Your task to perform on an android device: toggle location history Image 0: 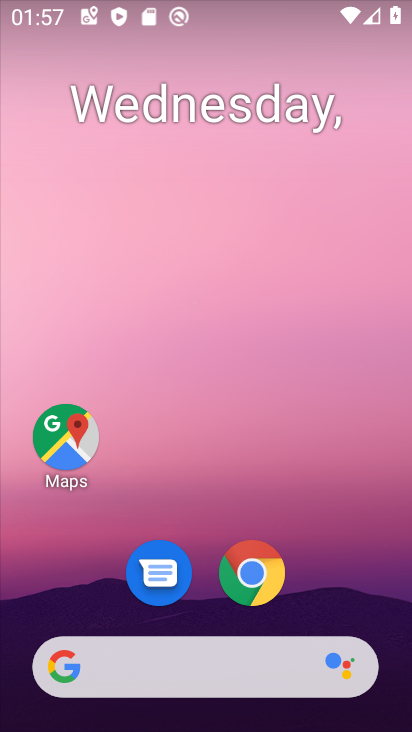
Step 0: drag from (340, 557) to (230, 33)
Your task to perform on an android device: toggle location history Image 1: 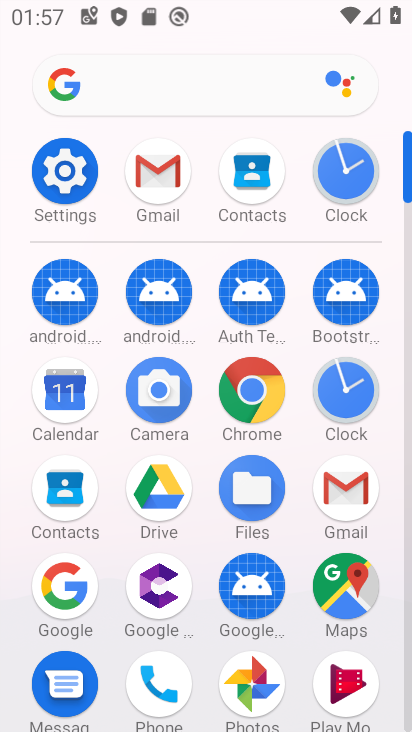
Step 1: click (66, 172)
Your task to perform on an android device: toggle location history Image 2: 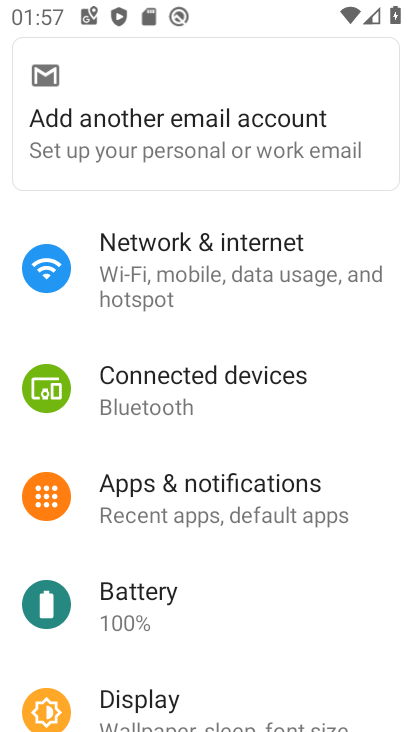
Step 2: drag from (249, 523) to (233, 382)
Your task to perform on an android device: toggle location history Image 3: 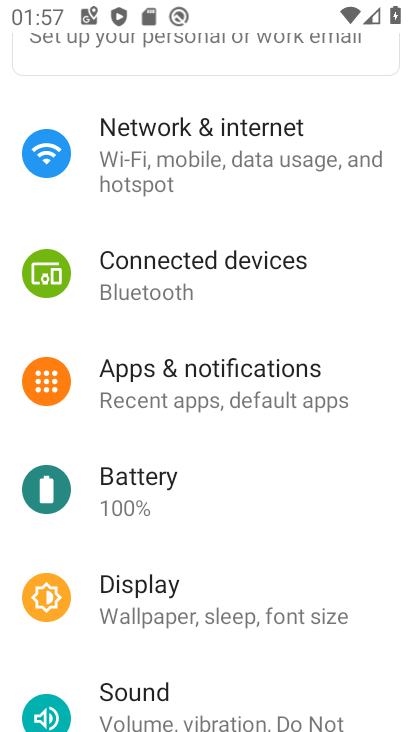
Step 3: drag from (258, 529) to (257, 394)
Your task to perform on an android device: toggle location history Image 4: 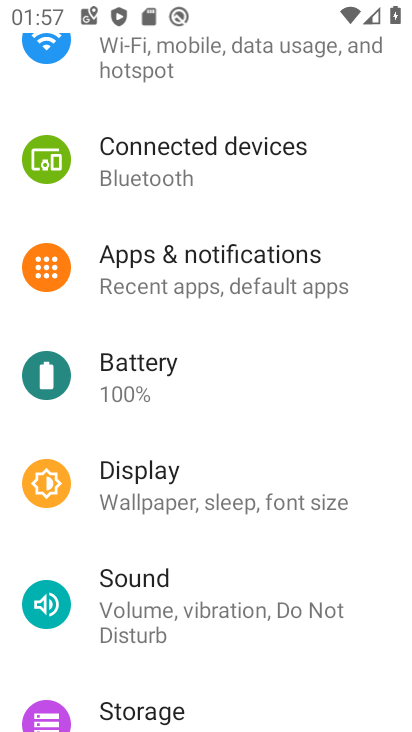
Step 4: drag from (257, 588) to (286, 437)
Your task to perform on an android device: toggle location history Image 5: 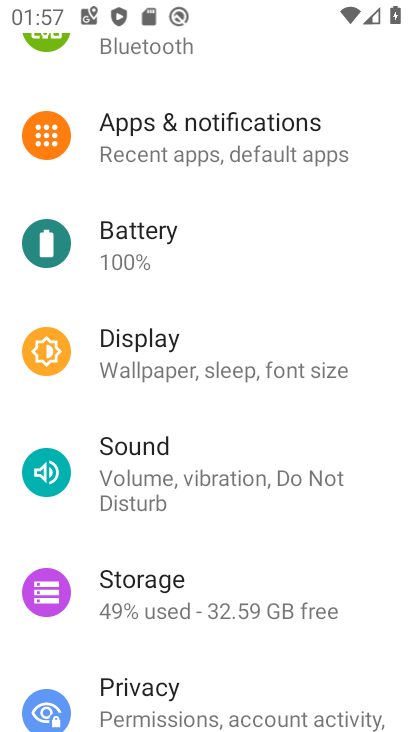
Step 5: drag from (239, 573) to (276, 449)
Your task to perform on an android device: toggle location history Image 6: 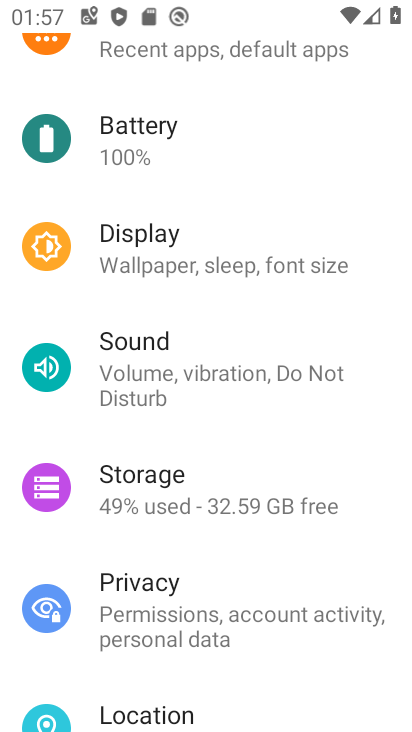
Step 6: drag from (217, 587) to (288, 405)
Your task to perform on an android device: toggle location history Image 7: 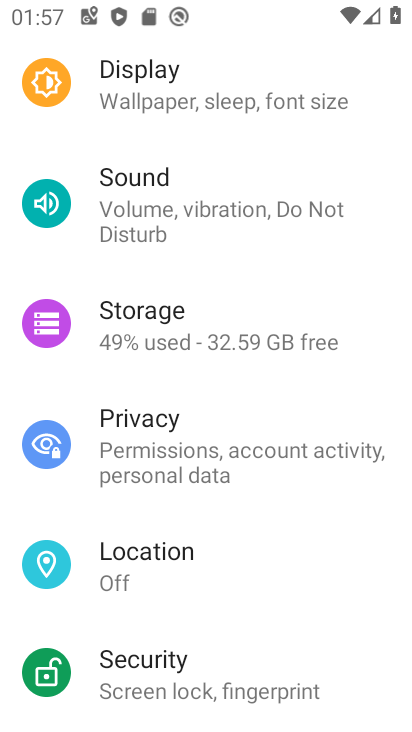
Step 7: click (165, 560)
Your task to perform on an android device: toggle location history Image 8: 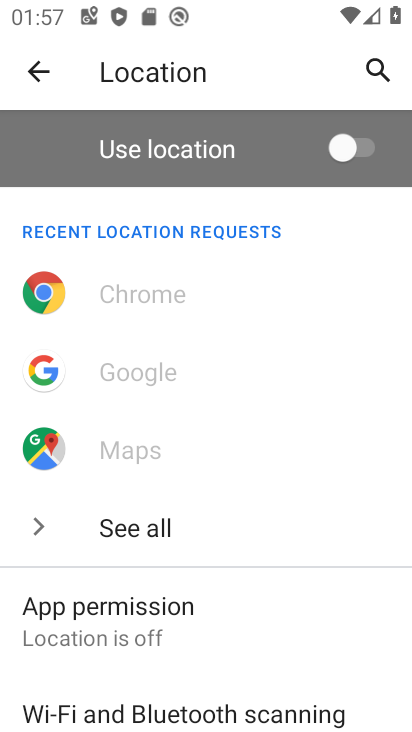
Step 8: drag from (190, 643) to (265, 474)
Your task to perform on an android device: toggle location history Image 9: 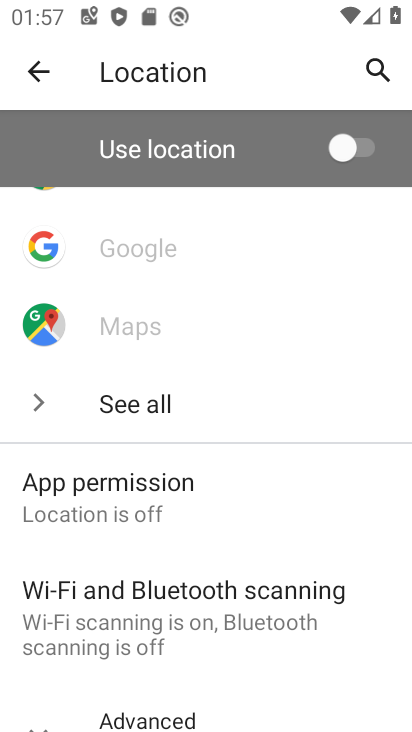
Step 9: drag from (190, 639) to (281, 417)
Your task to perform on an android device: toggle location history Image 10: 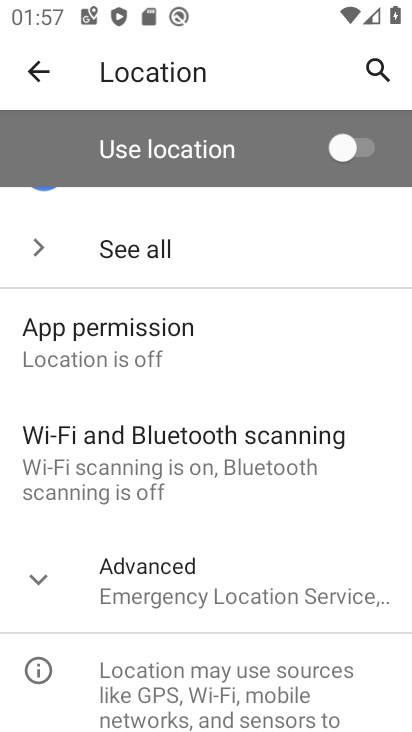
Step 10: click (181, 600)
Your task to perform on an android device: toggle location history Image 11: 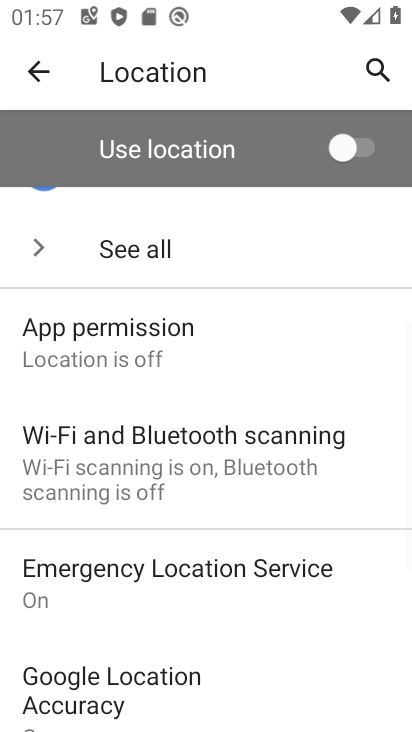
Step 11: drag from (251, 678) to (315, 495)
Your task to perform on an android device: toggle location history Image 12: 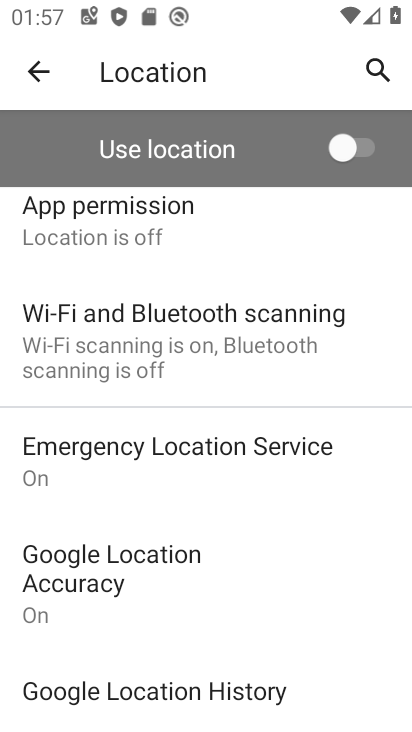
Step 12: drag from (219, 634) to (306, 440)
Your task to perform on an android device: toggle location history Image 13: 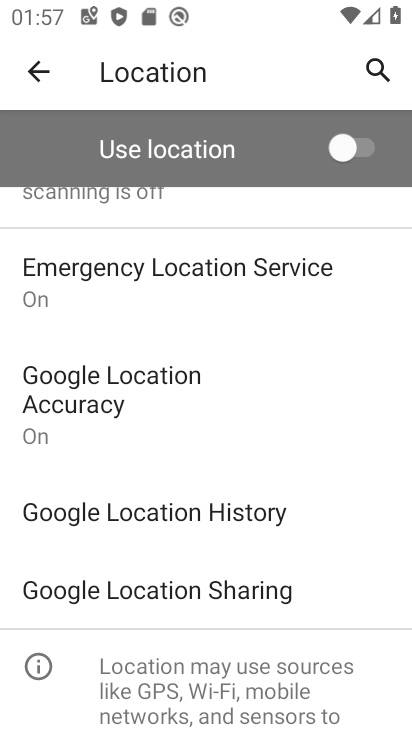
Step 13: click (198, 506)
Your task to perform on an android device: toggle location history Image 14: 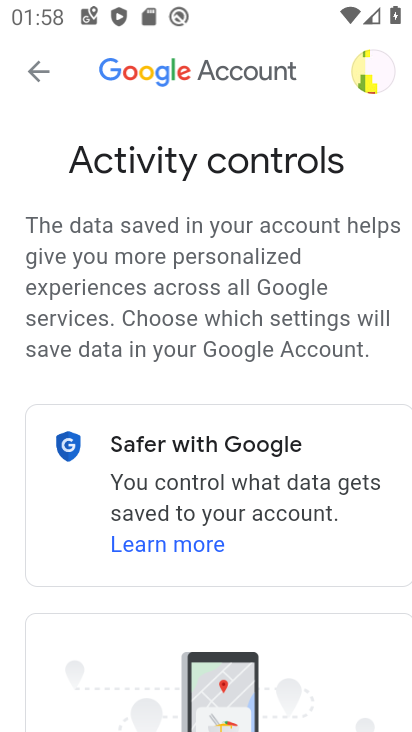
Step 14: drag from (287, 654) to (350, 318)
Your task to perform on an android device: toggle location history Image 15: 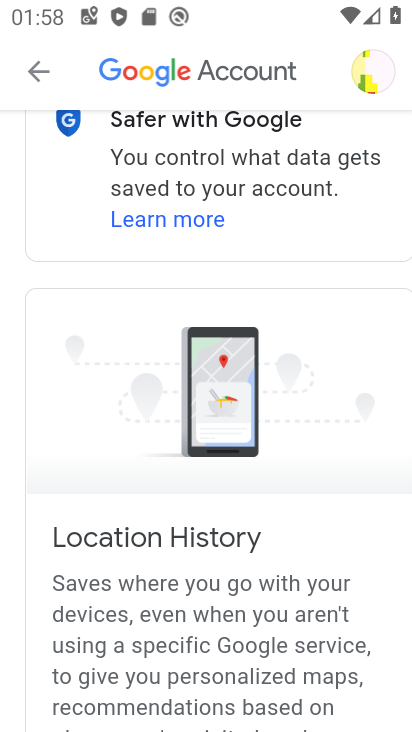
Step 15: drag from (267, 580) to (332, 274)
Your task to perform on an android device: toggle location history Image 16: 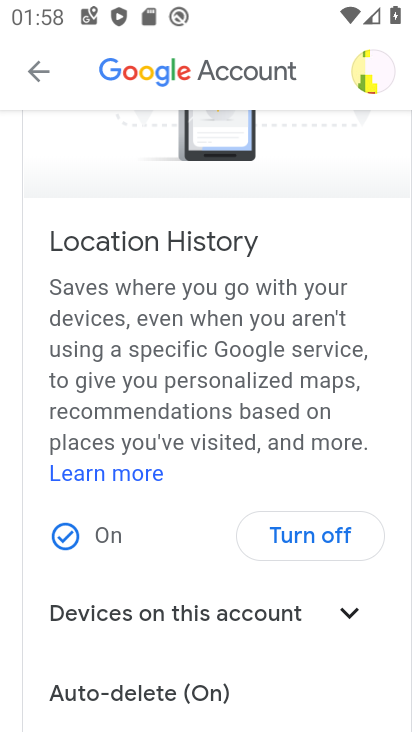
Step 16: click (313, 537)
Your task to perform on an android device: toggle location history Image 17: 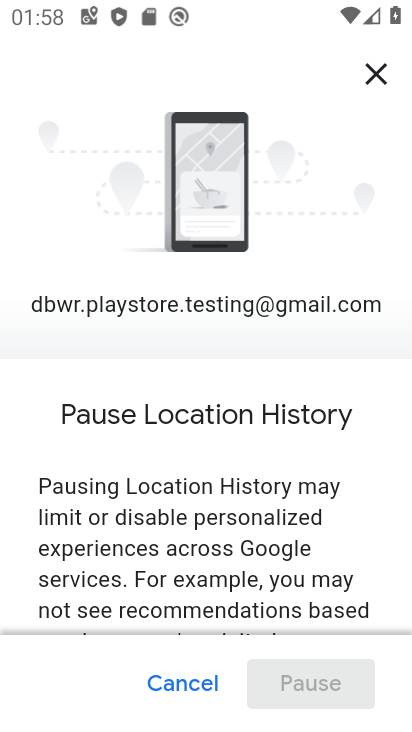
Step 17: drag from (281, 587) to (279, 227)
Your task to perform on an android device: toggle location history Image 18: 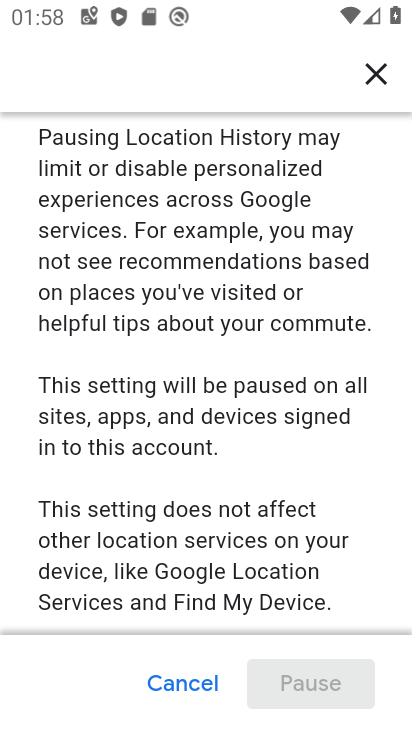
Step 18: drag from (268, 544) to (298, 236)
Your task to perform on an android device: toggle location history Image 19: 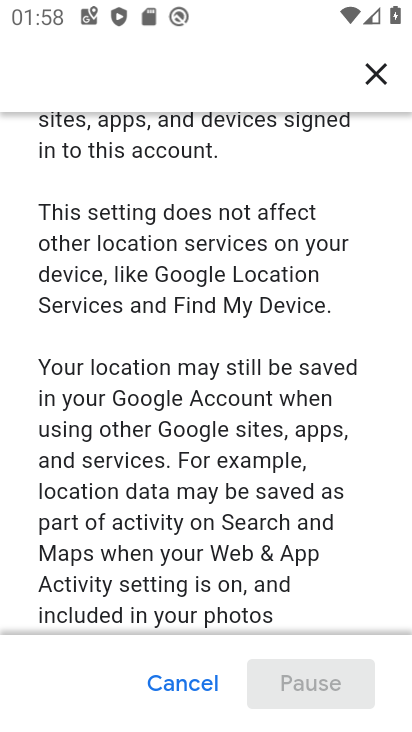
Step 19: drag from (278, 547) to (309, 287)
Your task to perform on an android device: toggle location history Image 20: 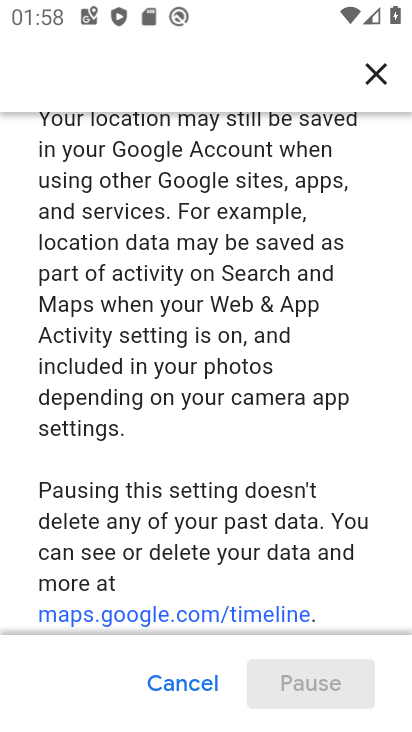
Step 20: drag from (291, 554) to (294, 279)
Your task to perform on an android device: toggle location history Image 21: 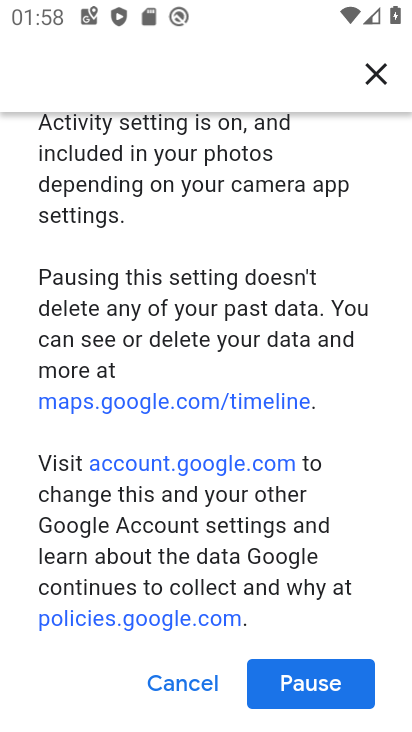
Step 21: click (302, 682)
Your task to perform on an android device: toggle location history Image 22: 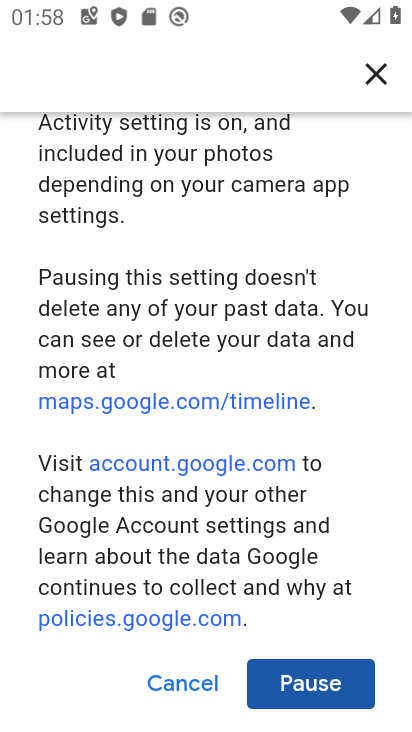
Step 22: click (302, 682)
Your task to perform on an android device: toggle location history Image 23: 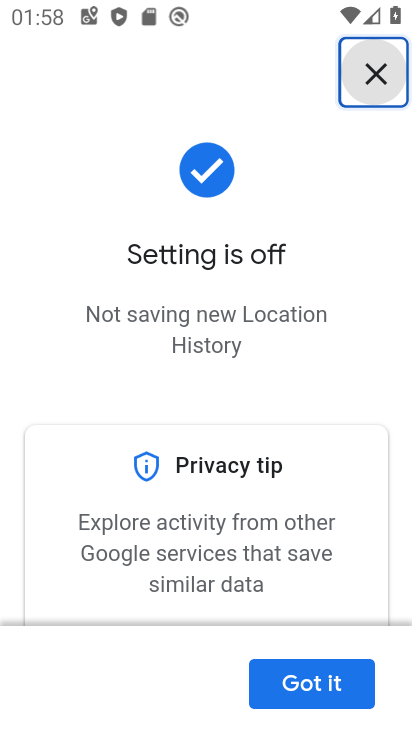
Step 23: click (296, 676)
Your task to perform on an android device: toggle location history Image 24: 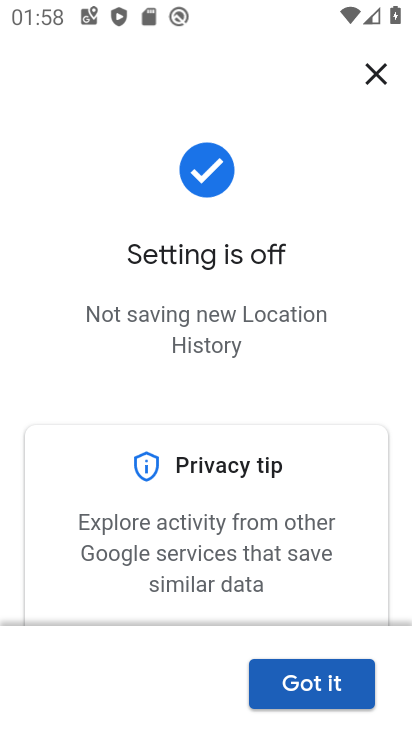
Step 24: click (314, 680)
Your task to perform on an android device: toggle location history Image 25: 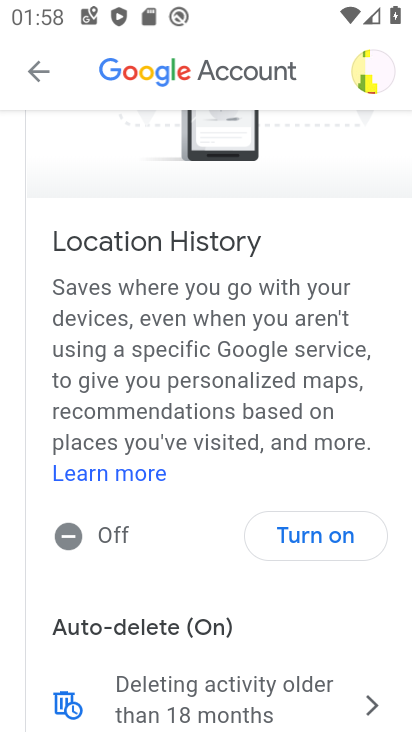
Step 25: task complete